Your task to perform on an android device: Open Amazon Image 0: 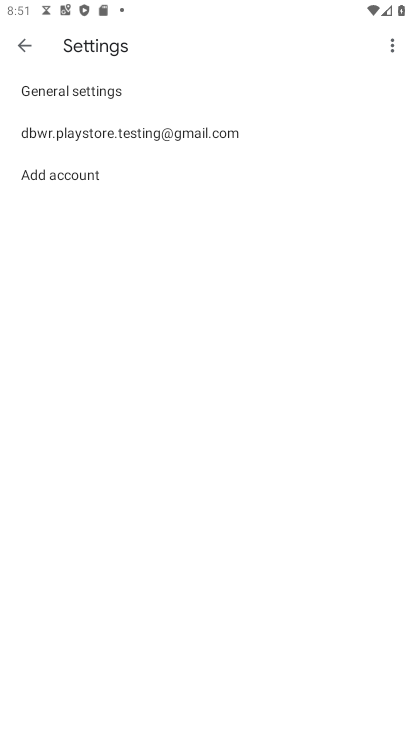
Step 0: press home button
Your task to perform on an android device: Open Amazon Image 1: 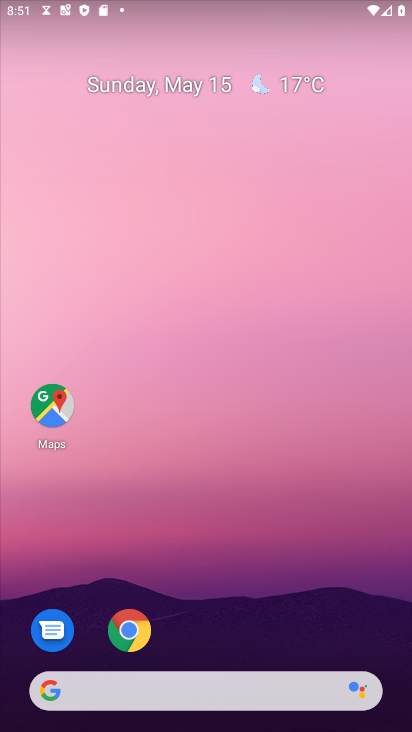
Step 1: drag from (239, 586) to (65, 0)
Your task to perform on an android device: Open Amazon Image 2: 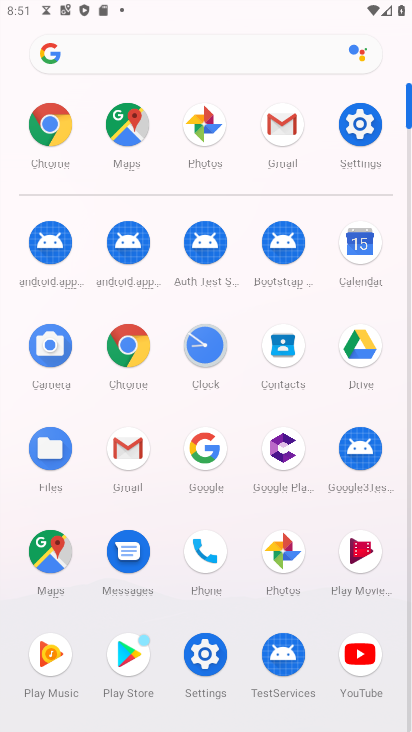
Step 2: click (44, 118)
Your task to perform on an android device: Open Amazon Image 3: 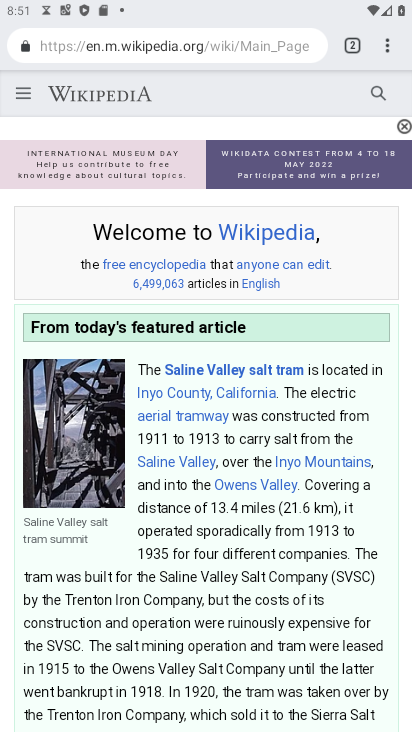
Step 3: click (181, 51)
Your task to perform on an android device: Open Amazon Image 4: 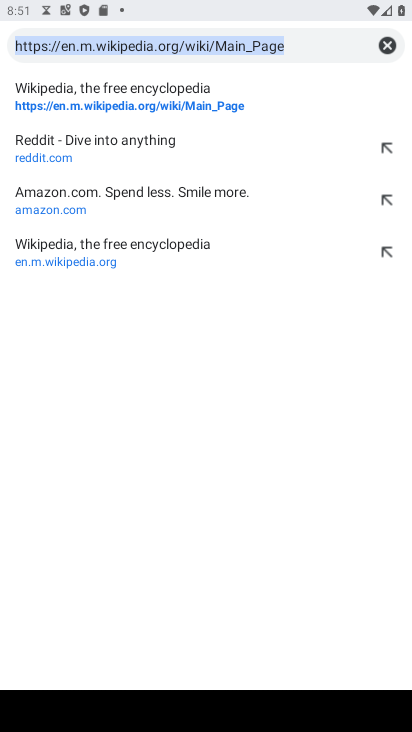
Step 4: click (125, 199)
Your task to perform on an android device: Open Amazon Image 5: 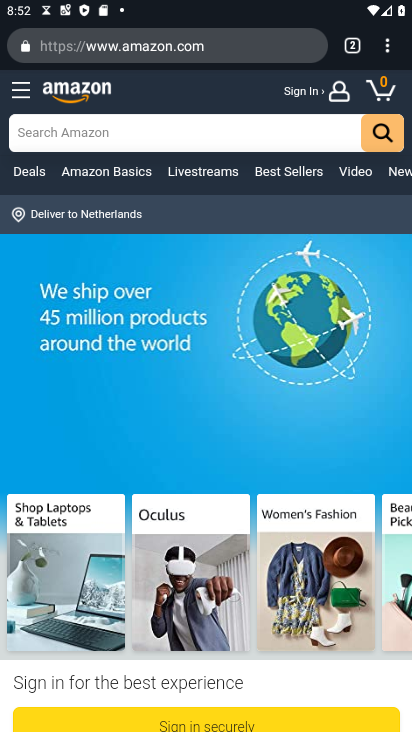
Step 5: task complete